Your task to perform on an android device: Open calendar and show me the fourth week of next month Image 0: 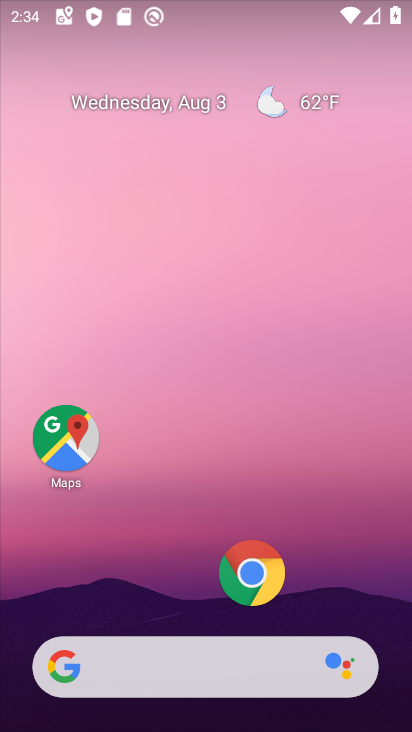
Step 0: drag from (170, 602) to (182, 8)
Your task to perform on an android device: Open calendar and show me the fourth week of next month Image 1: 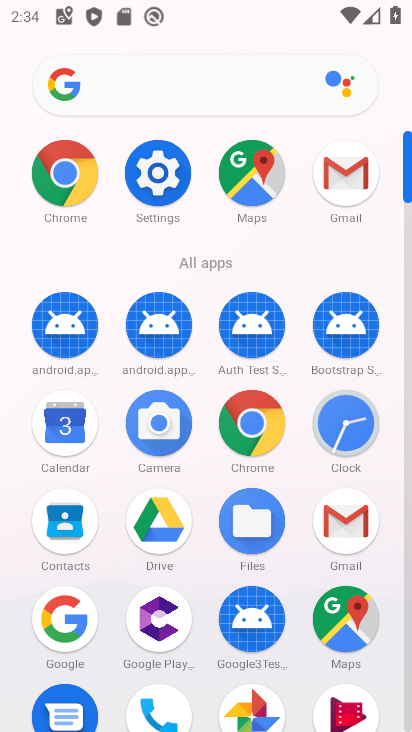
Step 1: click (66, 436)
Your task to perform on an android device: Open calendar and show me the fourth week of next month Image 2: 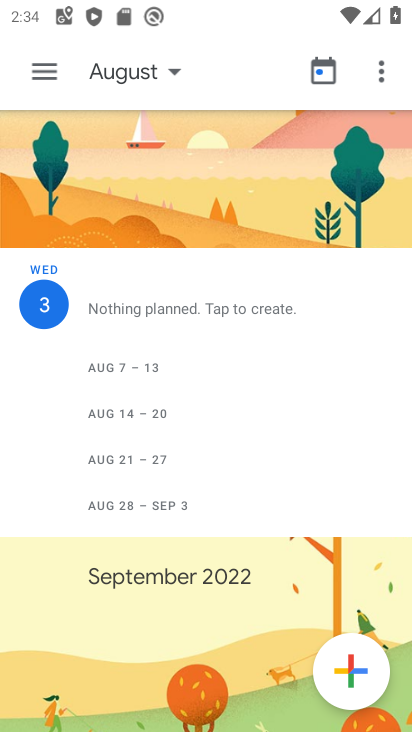
Step 2: click (40, 70)
Your task to perform on an android device: Open calendar and show me the fourth week of next month Image 3: 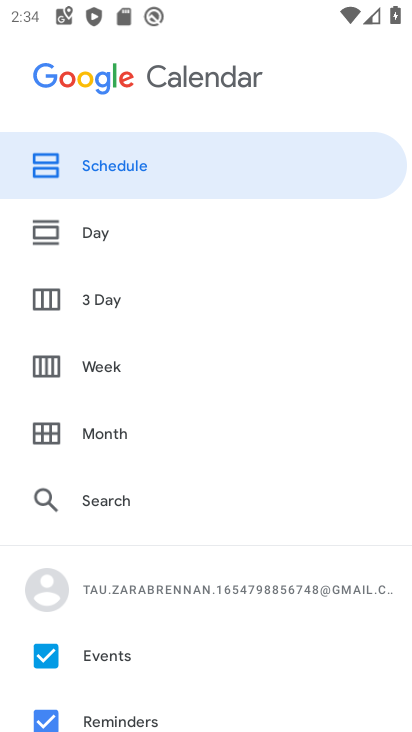
Step 3: click (107, 368)
Your task to perform on an android device: Open calendar and show me the fourth week of next month Image 4: 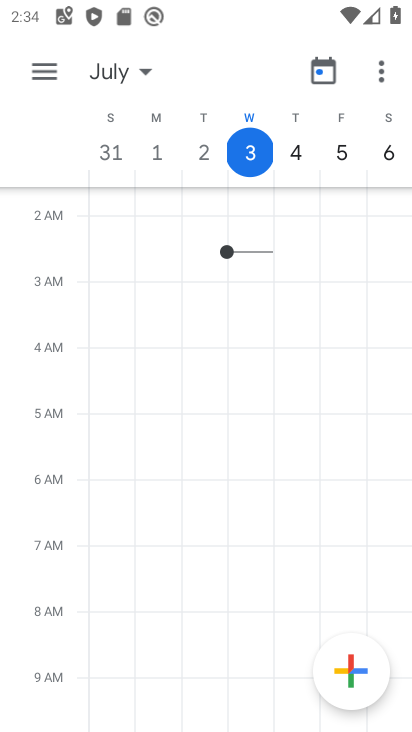
Step 4: task complete